Your task to perform on an android device: Open settings on Google Maps Image 0: 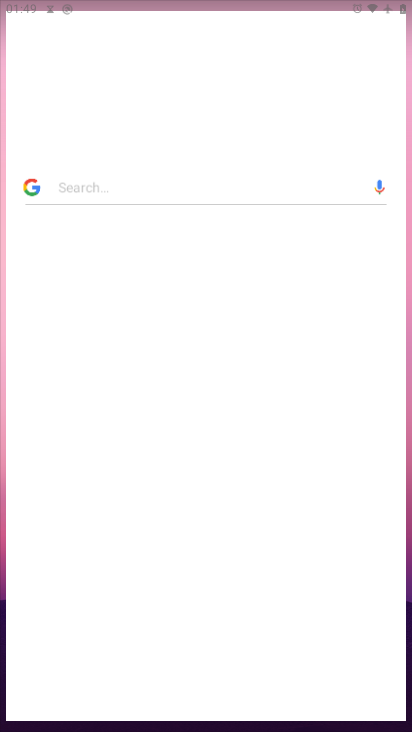
Step 0: press home button
Your task to perform on an android device: Open settings on Google Maps Image 1: 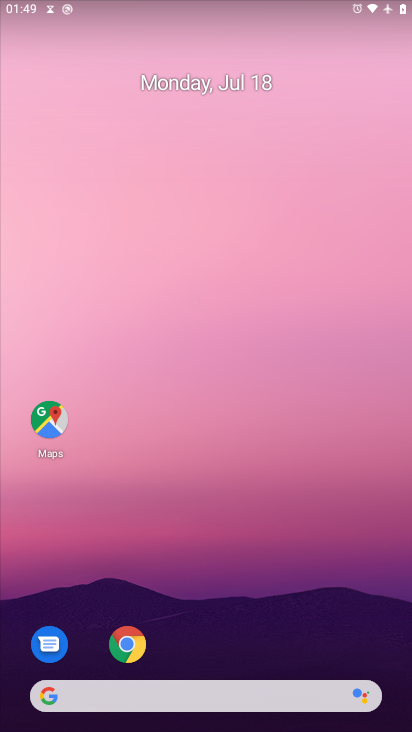
Step 1: drag from (238, 655) to (258, 182)
Your task to perform on an android device: Open settings on Google Maps Image 2: 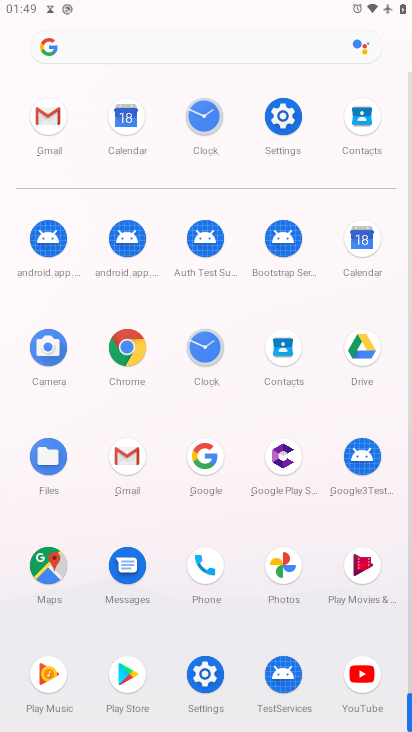
Step 2: click (46, 568)
Your task to perform on an android device: Open settings on Google Maps Image 3: 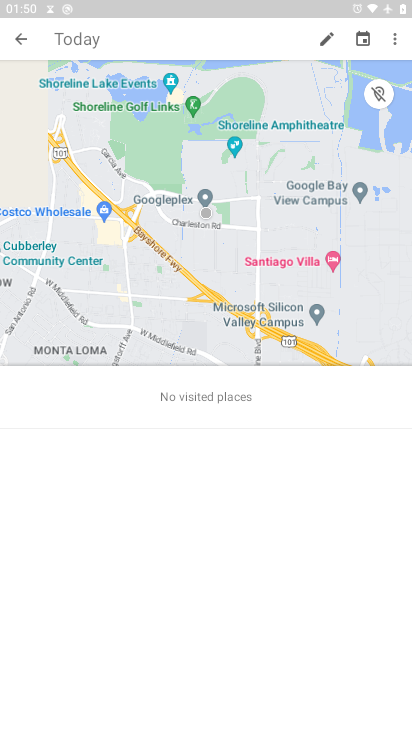
Step 3: click (21, 39)
Your task to perform on an android device: Open settings on Google Maps Image 4: 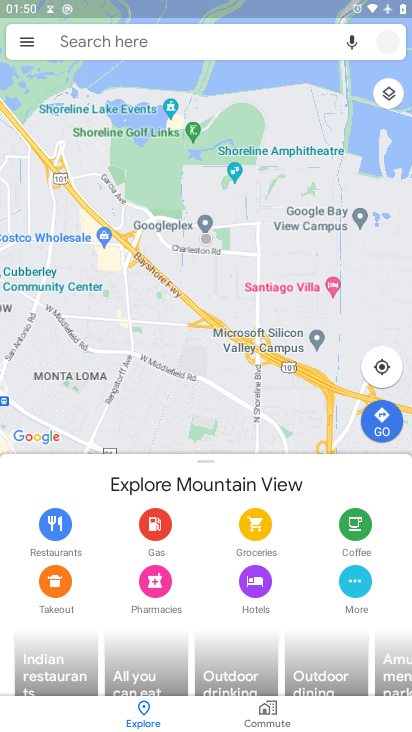
Step 4: click (20, 37)
Your task to perform on an android device: Open settings on Google Maps Image 5: 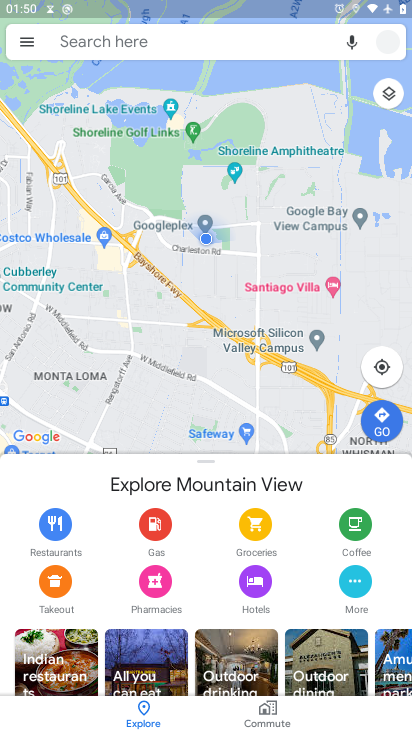
Step 5: click (27, 43)
Your task to perform on an android device: Open settings on Google Maps Image 6: 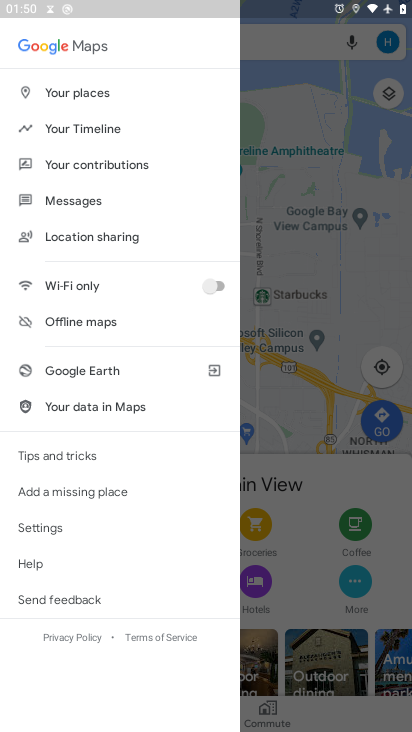
Step 6: click (42, 530)
Your task to perform on an android device: Open settings on Google Maps Image 7: 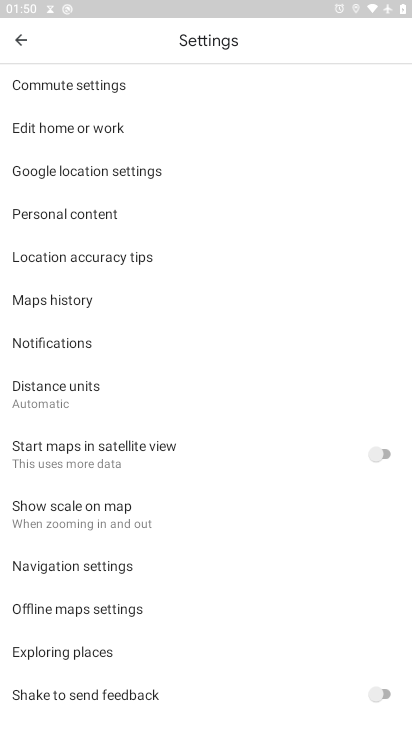
Step 7: task complete